Your task to perform on an android device: Go to notification settings Image 0: 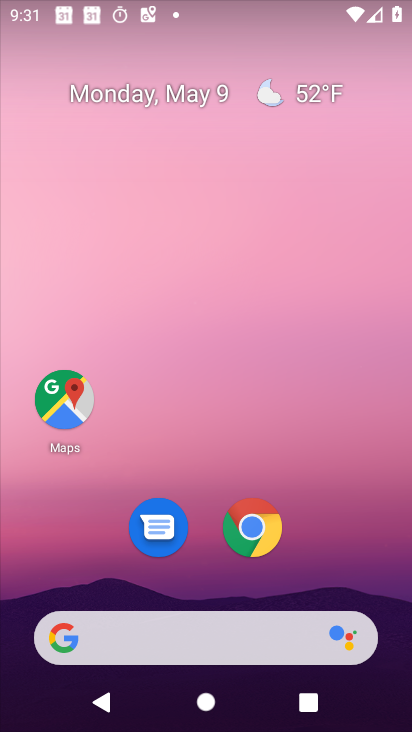
Step 0: drag from (374, 540) to (352, 83)
Your task to perform on an android device: Go to notification settings Image 1: 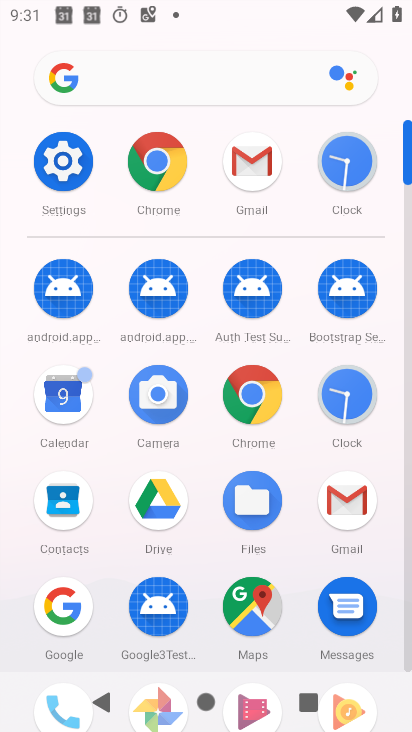
Step 1: click (69, 171)
Your task to perform on an android device: Go to notification settings Image 2: 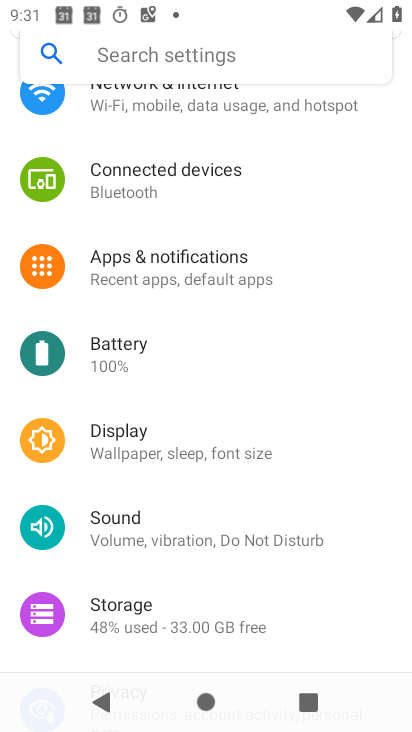
Step 2: click (201, 281)
Your task to perform on an android device: Go to notification settings Image 3: 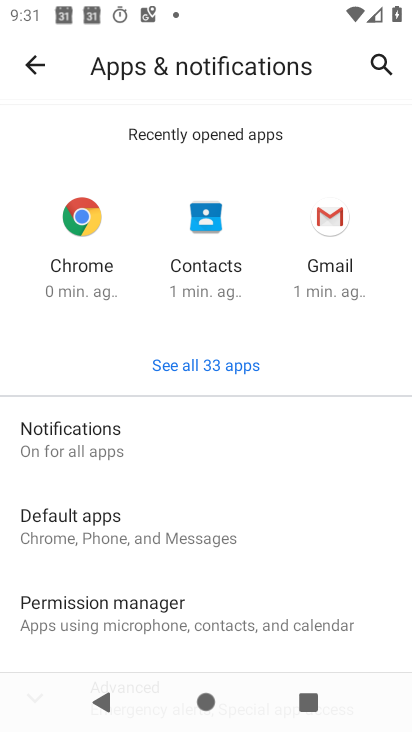
Step 3: click (102, 443)
Your task to perform on an android device: Go to notification settings Image 4: 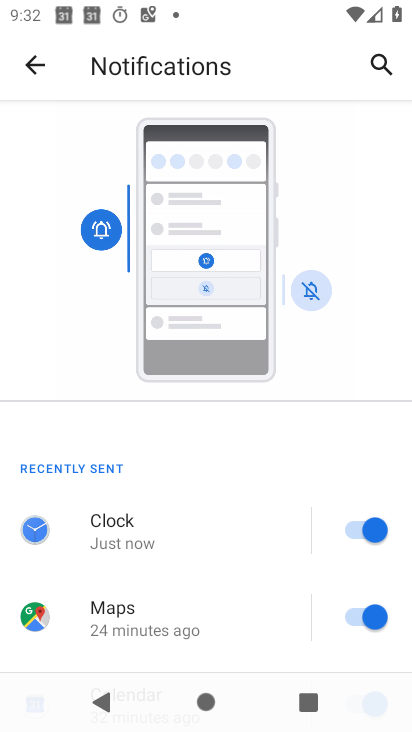
Step 4: task complete